Your task to perform on an android device: Go to Yahoo.com Image 0: 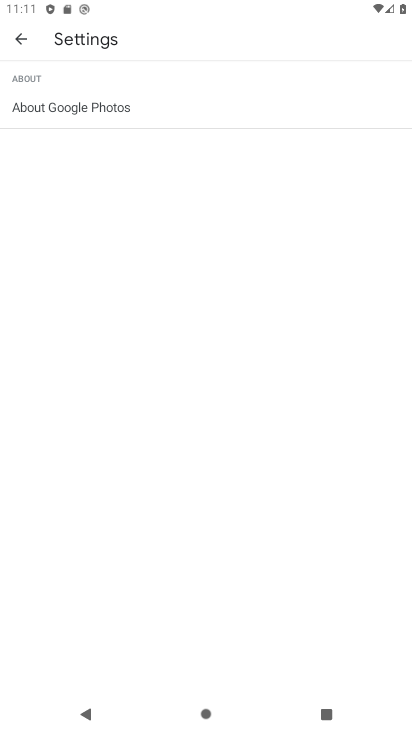
Step 0: press home button
Your task to perform on an android device: Go to Yahoo.com Image 1: 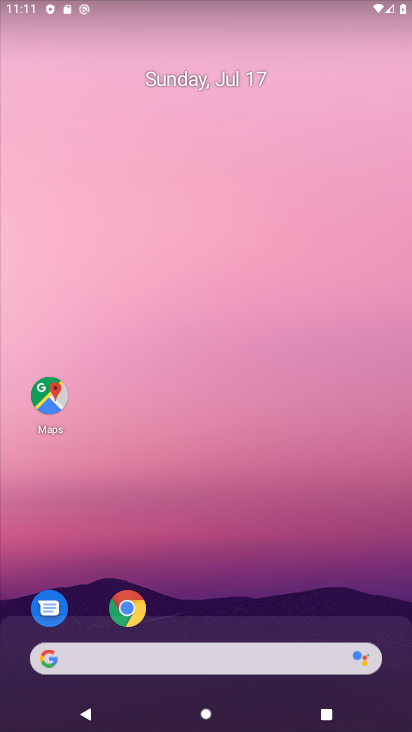
Step 1: drag from (170, 621) to (307, 13)
Your task to perform on an android device: Go to Yahoo.com Image 2: 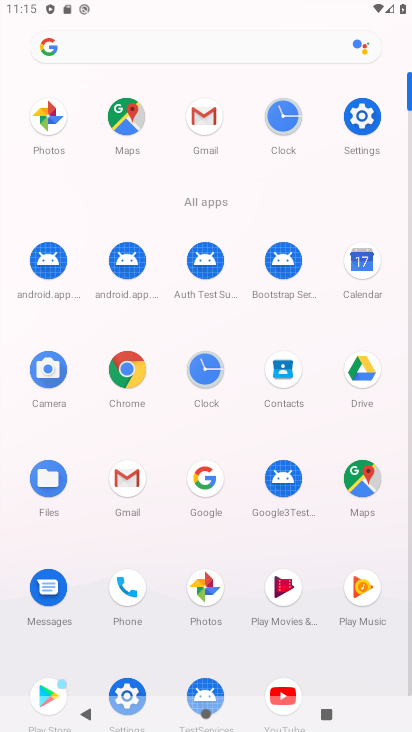
Step 2: click (134, 359)
Your task to perform on an android device: Go to Yahoo.com Image 3: 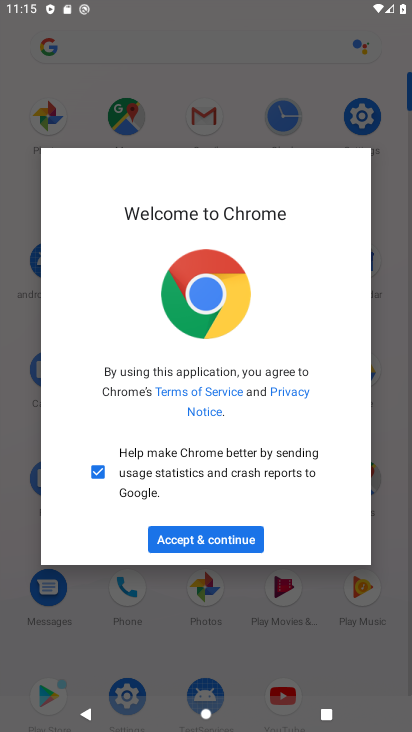
Step 3: click (178, 546)
Your task to perform on an android device: Go to Yahoo.com Image 4: 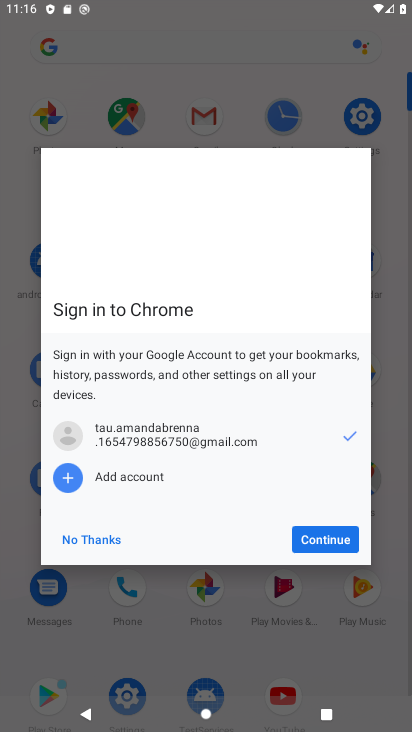
Step 4: click (296, 536)
Your task to perform on an android device: Go to Yahoo.com Image 5: 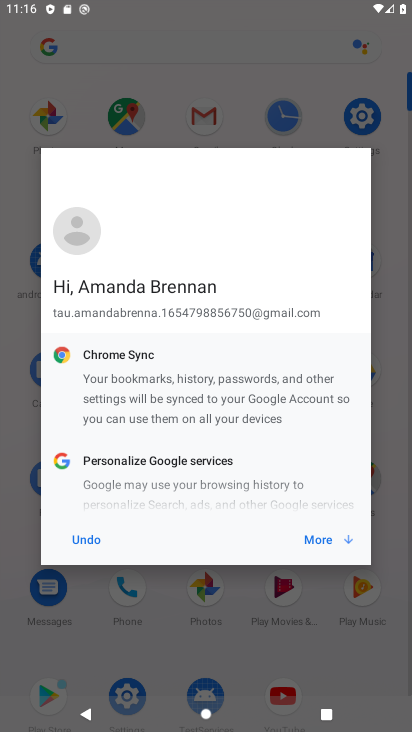
Step 5: click (330, 537)
Your task to perform on an android device: Go to Yahoo.com Image 6: 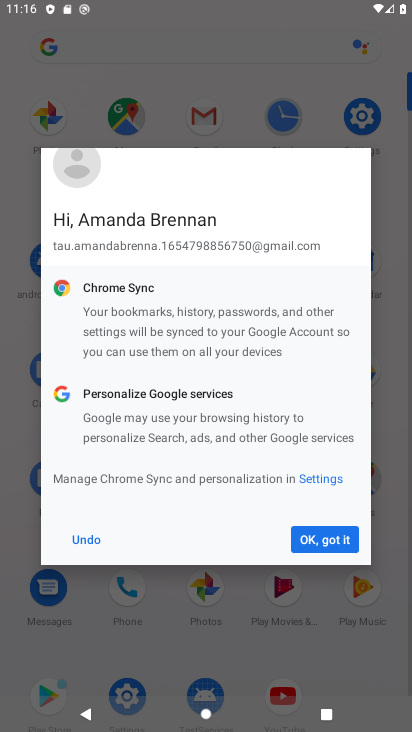
Step 6: click (321, 540)
Your task to perform on an android device: Go to Yahoo.com Image 7: 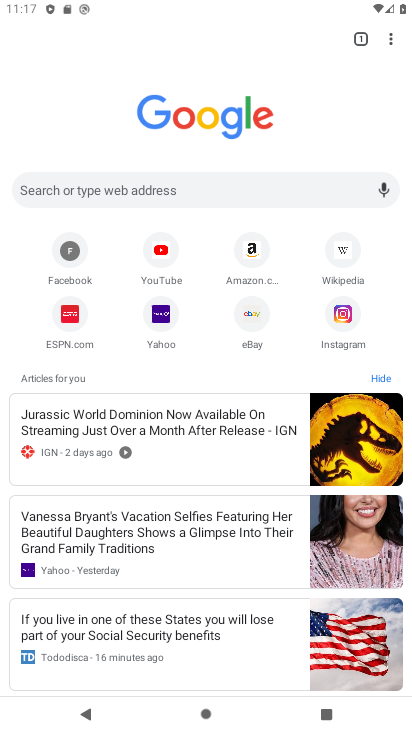
Step 7: drag from (175, 625) to (168, 174)
Your task to perform on an android device: Go to Yahoo.com Image 8: 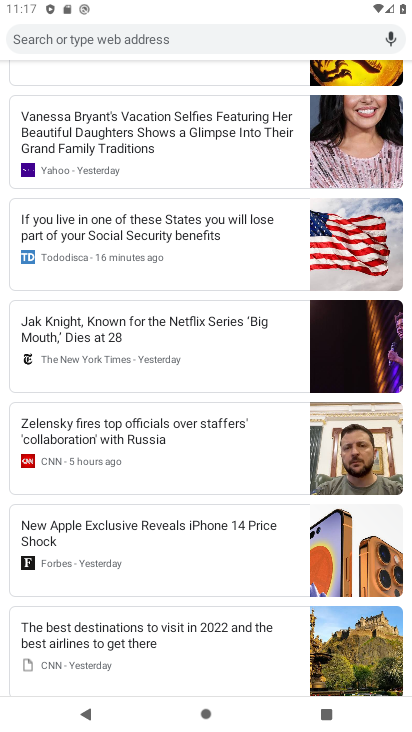
Step 8: drag from (159, 88) to (116, 531)
Your task to perform on an android device: Go to Yahoo.com Image 9: 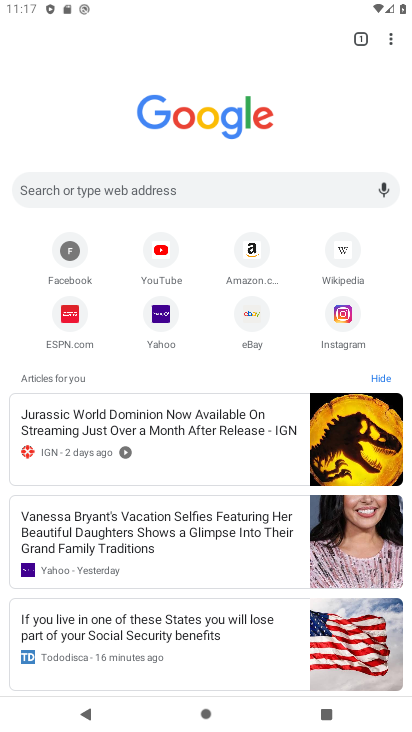
Step 9: click (157, 320)
Your task to perform on an android device: Go to Yahoo.com Image 10: 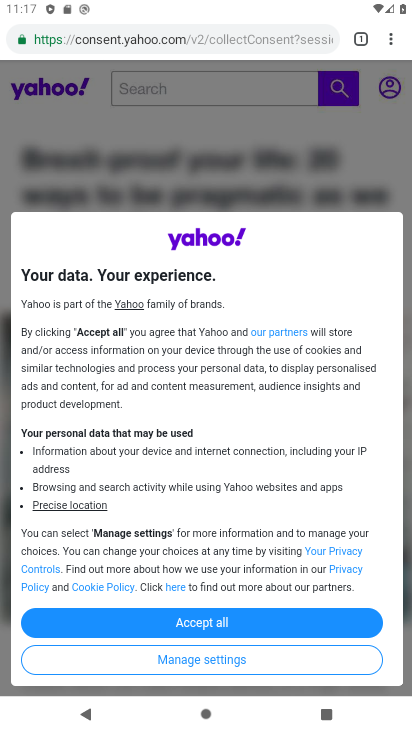
Step 10: task complete